Your task to perform on an android device: Open Google Chrome and click the shortcut for Amazon.com Image 0: 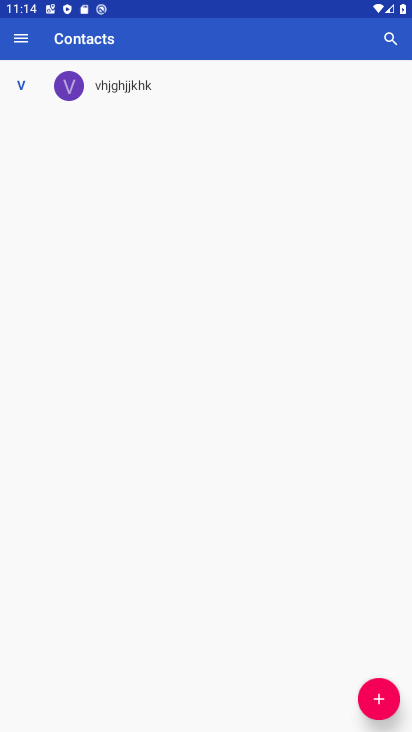
Step 0: press home button
Your task to perform on an android device: Open Google Chrome and click the shortcut for Amazon.com Image 1: 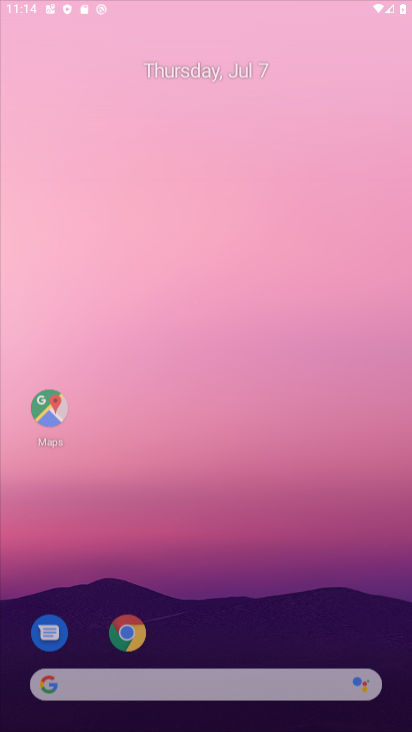
Step 1: drag from (167, 515) to (212, 245)
Your task to perform on an android device: Open Google Chrome and click the shortcut for Amazon.com Image 2: 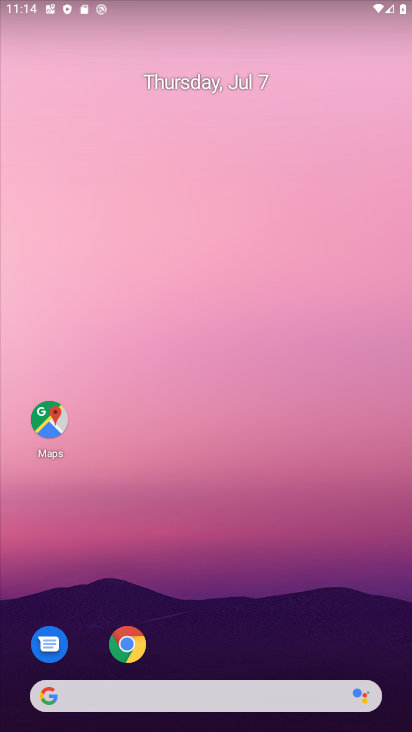
Step 2: drag from (185, 631) to (193, 512)
Your task to perform on an android device: Open Google Chrome and click the shortcut for Amazon.com Image 3: 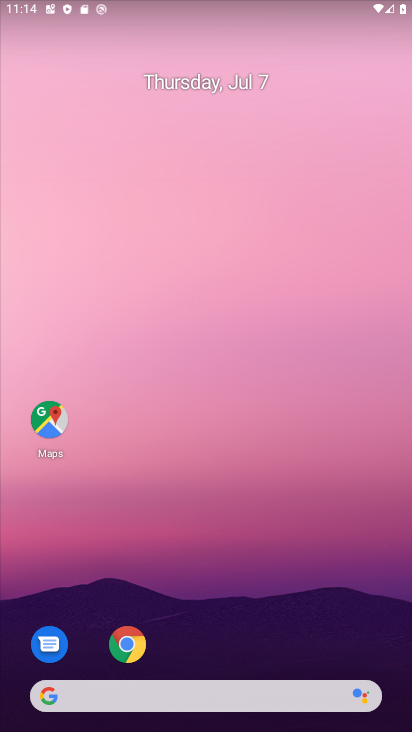
Step 3: drag from (186, 649) to (230, 109)
Your task to perform on an android device: Open Google Chrome and click the shortcut for Amazon.com Image 4: 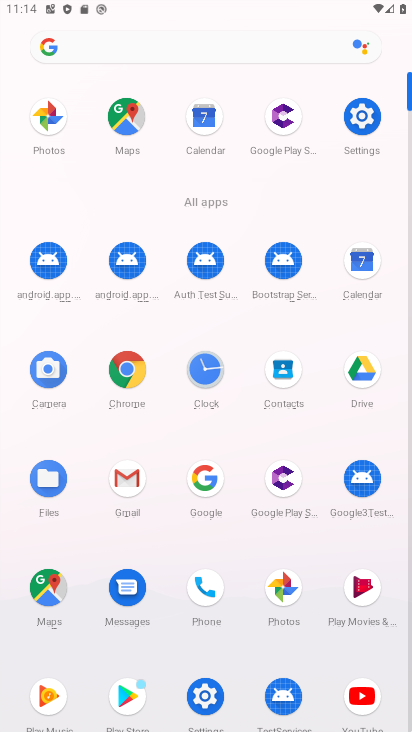
Step 4: click (129, 372)
Your task to perform on an android device: Open Google Chrome and click the shortcut for Amazon.com Image 5: 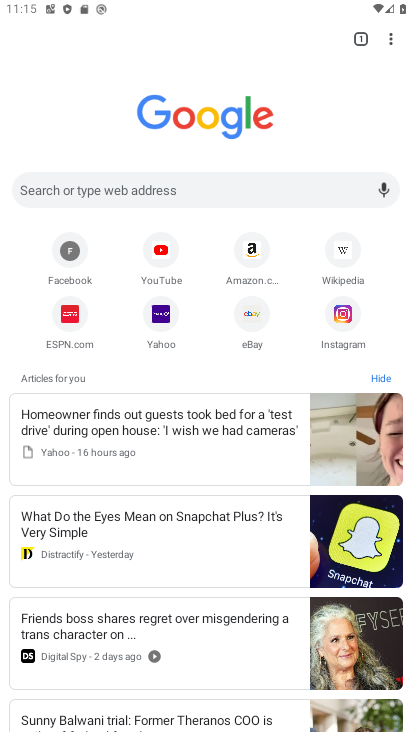
Step 5: click (249, 251)
Your task to perform on an android device: Open Google Chrome and click the shortcut for Amazon.com Image 6: 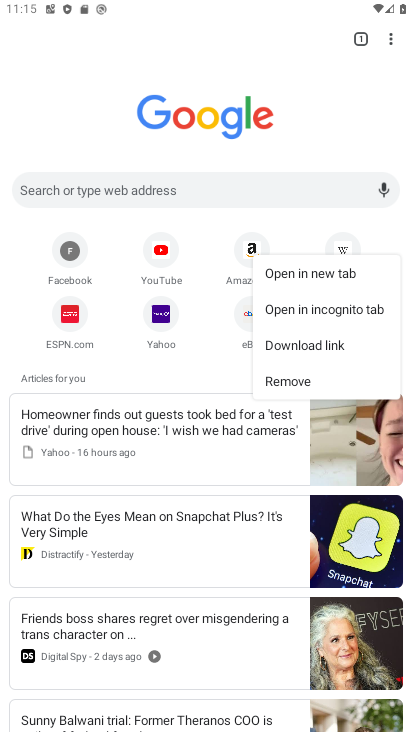
Step 6: drag from (115, 554) to (180, 296)
Your task to perform on an android device: Open Google Chrome and click the shortcut for Amazon.com Image 7: 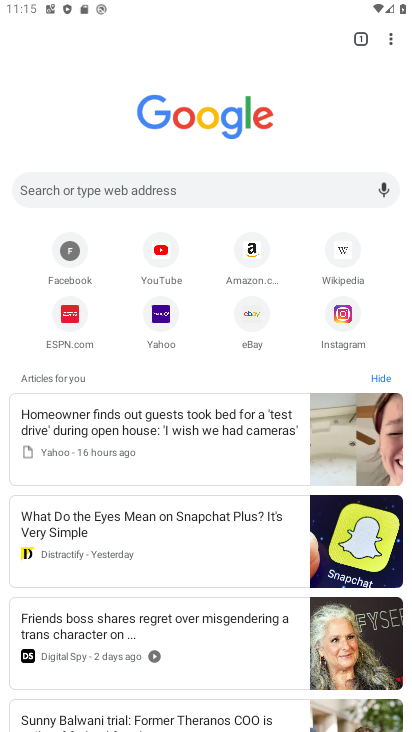
Step 7: drag from (157, 212) to (227, 589)
Your task to perform on an android device: Open Google Chrome and click the shortcut for Amazon.com Image 8: 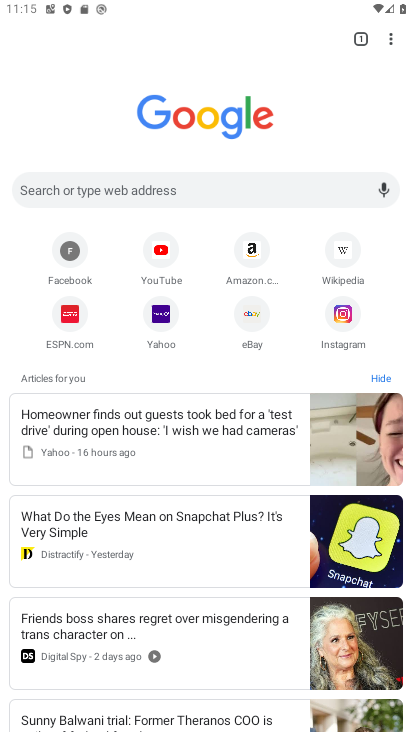
Step 8: click (249, 261)
Your task to perform on an android device: Open Google Chrome and click the shortcut for Amazon.com Image 9: 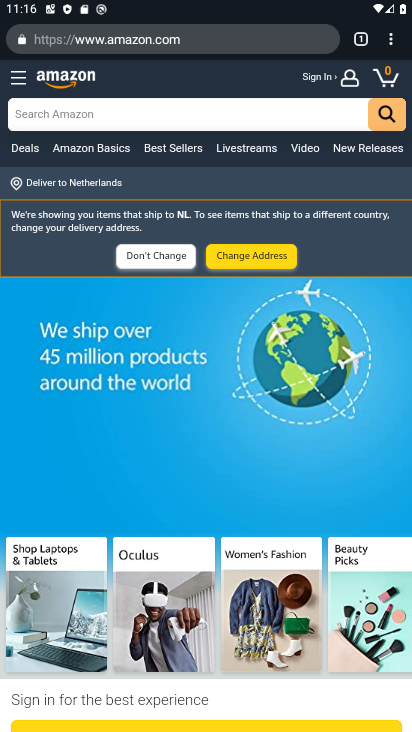
Step 9: task complete